Your task to perform on an android device: Open Android settings Image 0: 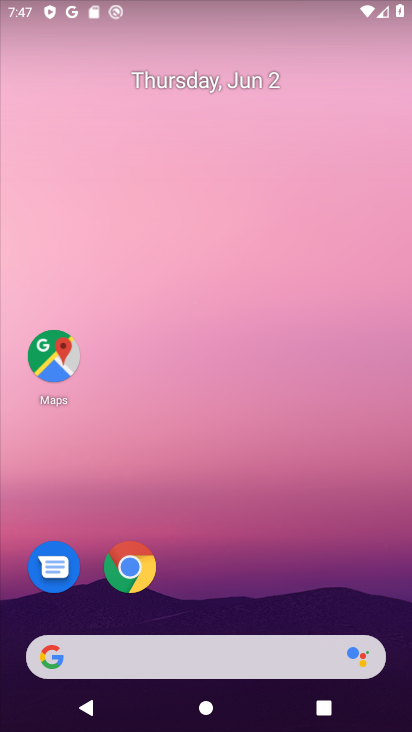
Step 0: drag from (312, 603) to (295, 119)
Your task to perform on an android device: Open Android settings Image 1: 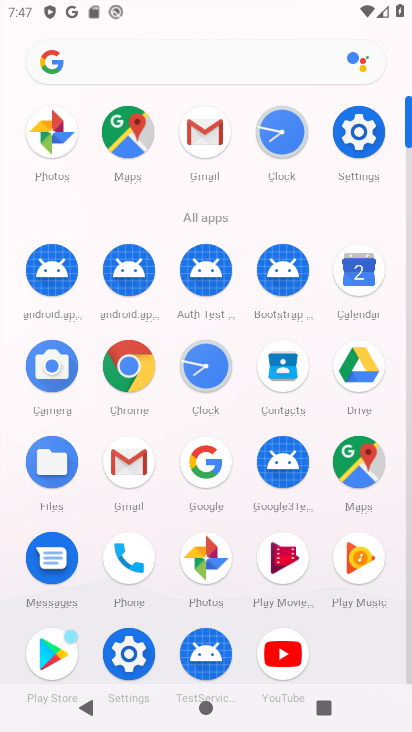
Step 1: click (368, 129)
Your task to perform on an android device: Open Android settings Image 2: 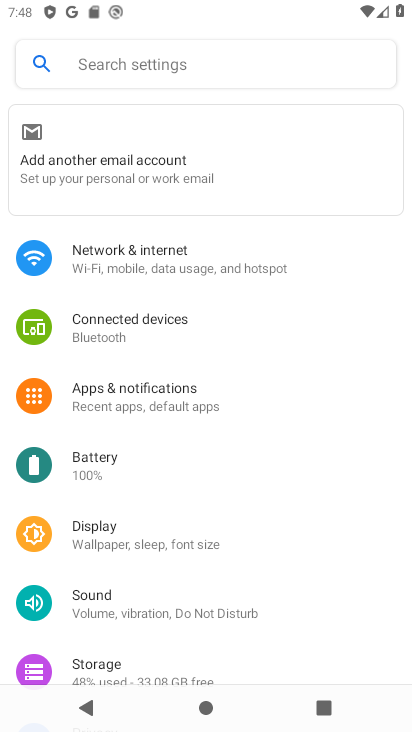
Step 2: task complete